Your task to perform on an android device: Open the Play Movies app and select the watchlist tab. Image 0: 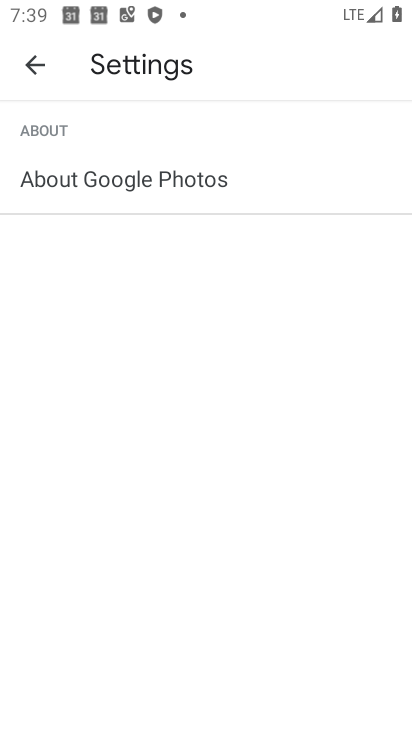
Step 0: press home button
Your task to perform on an android device: Open the Play Movies app and select the watchlist tab. Image 1: 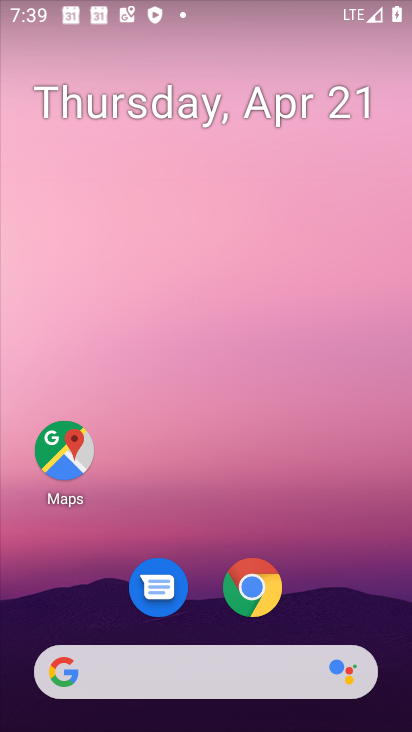
Step 1: drag from (346, 374) to (328, 15)
Your task to perform on an android device: Open the Play Movies app and select the watchlist tab. Image 2: 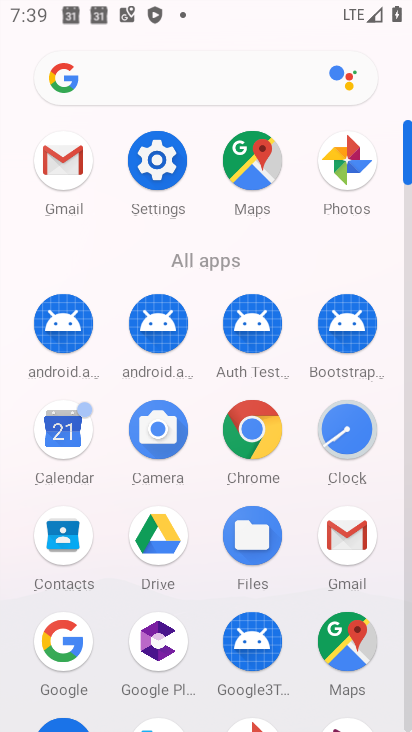
Step 2: drag from (405, 131) to (397, 51)
Your task to perform on an android device: Open the Play Movies app and select the watchlist tab. Image 3: 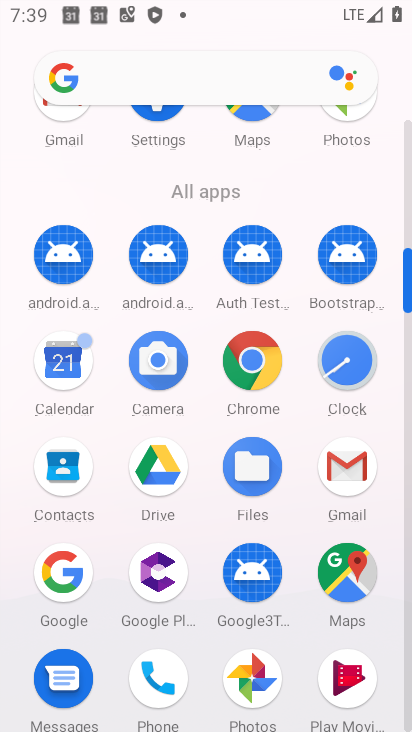
Step 3: click (341, 661)
Your task to perform on an android device: Open the Play Movies app and select the watchlist tab. Image 4: 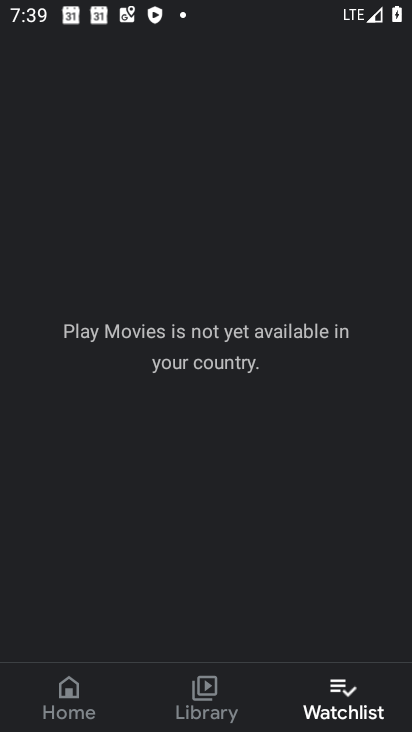
Step 4: click (343, 692)
Your task to perform on an android device: Open the Play Movies app and select the watchlist tab. Image 5: 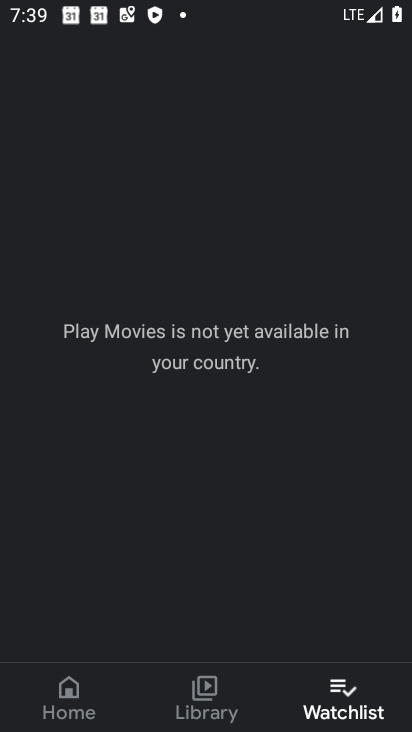
Step 5: task complete